Your task to perform on an android device: Go to ESPN.com Image 0: 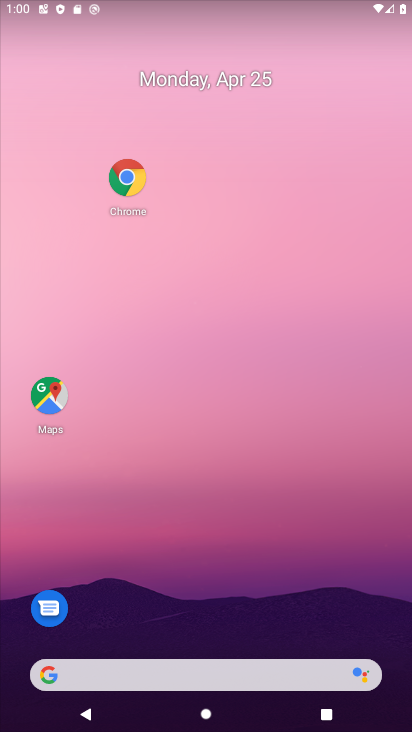
Step 0: drag from (290, 596) to (300, 122)
Your task to perform on an android device: Go to ESPN.com Image 1: 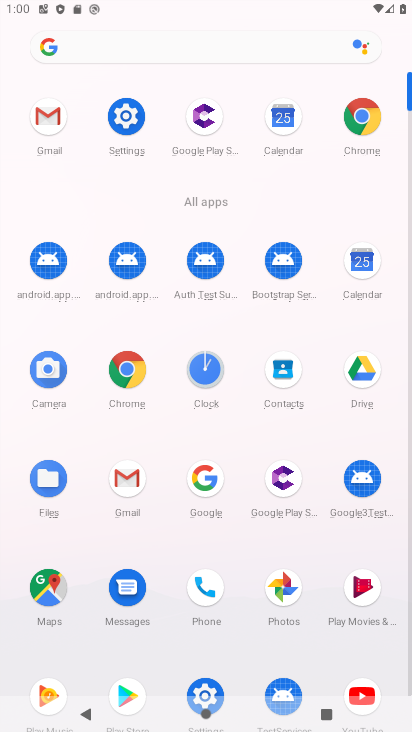
Step 1: click (119, 369)
Your task to perform on an android device: Go to ESPN.com Image 2: 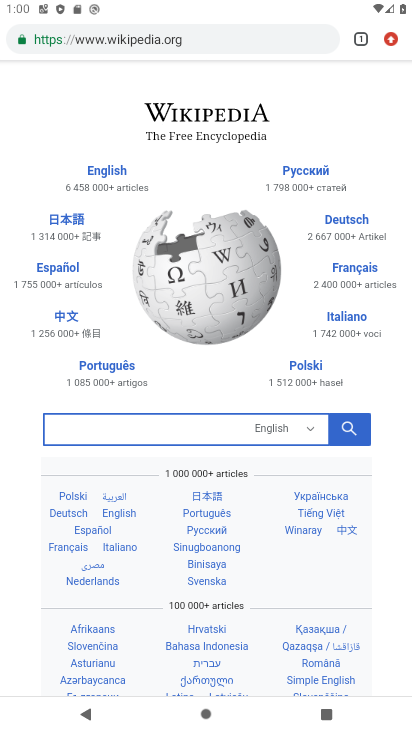
Step 2: click (242, 40)
Your task to perform on an android device: Go to ESPN.com Image 3: 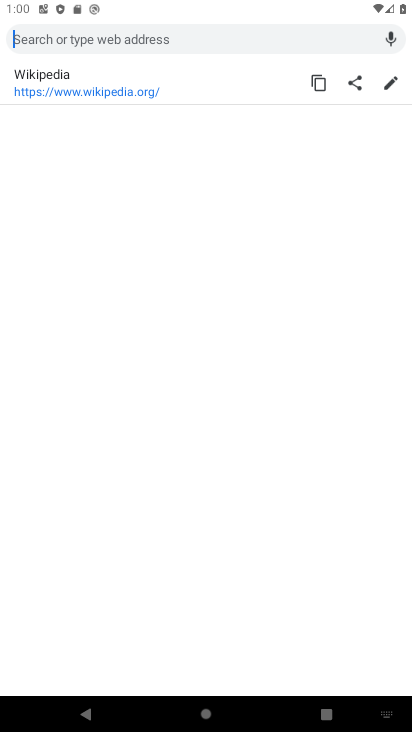
Step 3: type "espn.com"
Your task to perform on an android device: Go to ESPN.com Image 4: 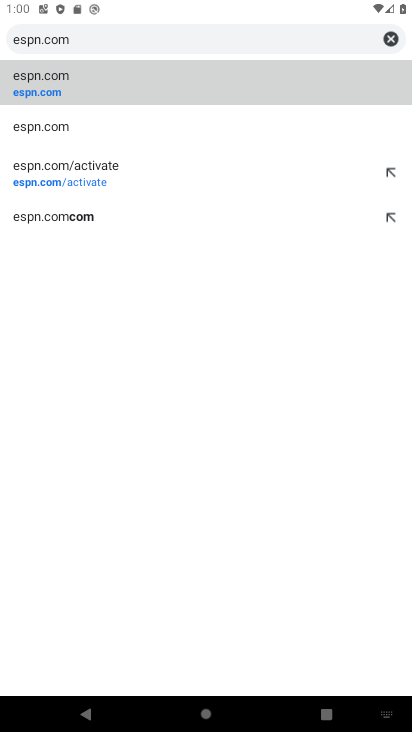
Step 4: click (32, 93)
Your task to perform on an android device: Go to ESPN.com Image 5: 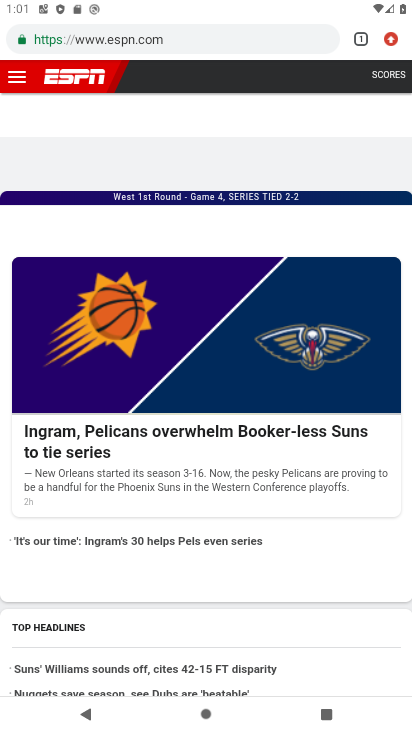
Step 5: task complete